Your task to perform on an android device: Open Google Chrome and open the bookmarks view Image 0: 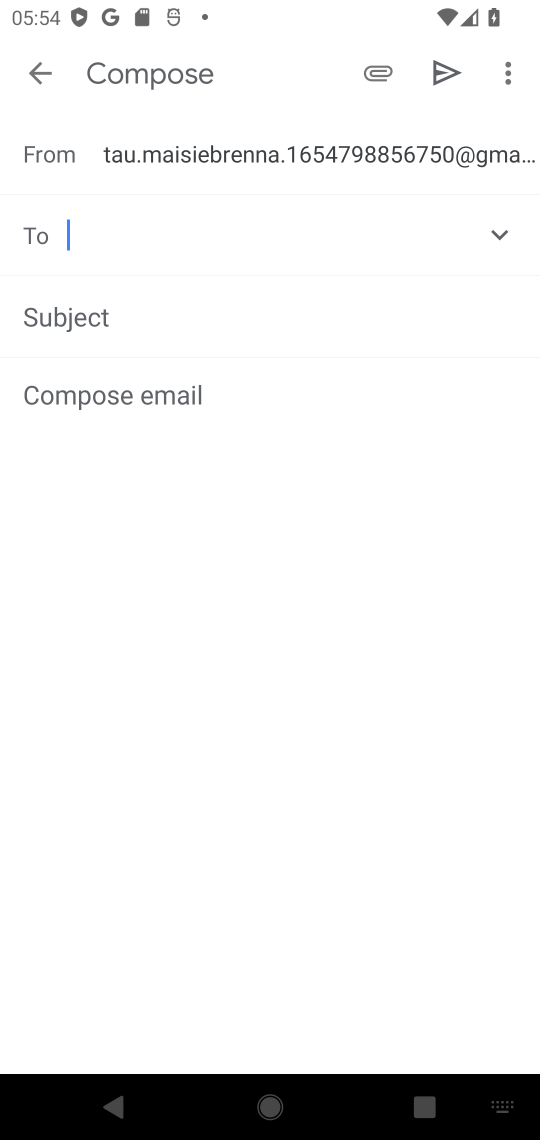
Step 0: press home button
Your task to perform on an android device: Open Google Chrome and open the bookmarks view Image 1: 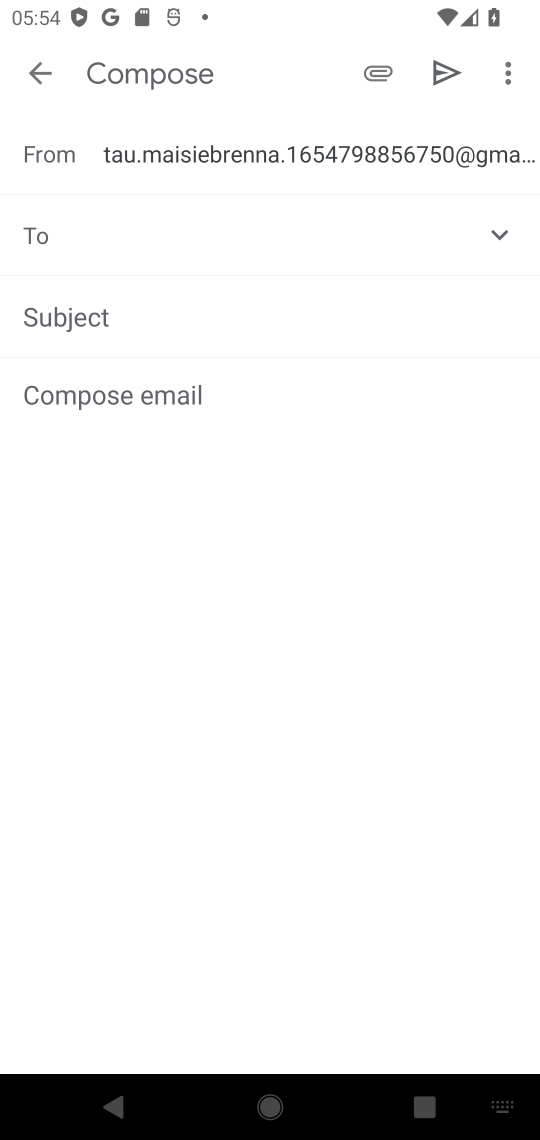
Step 1: press home button
Your task to perform on an android device: Open Google Chrome and open the bookmarks view Image 2: 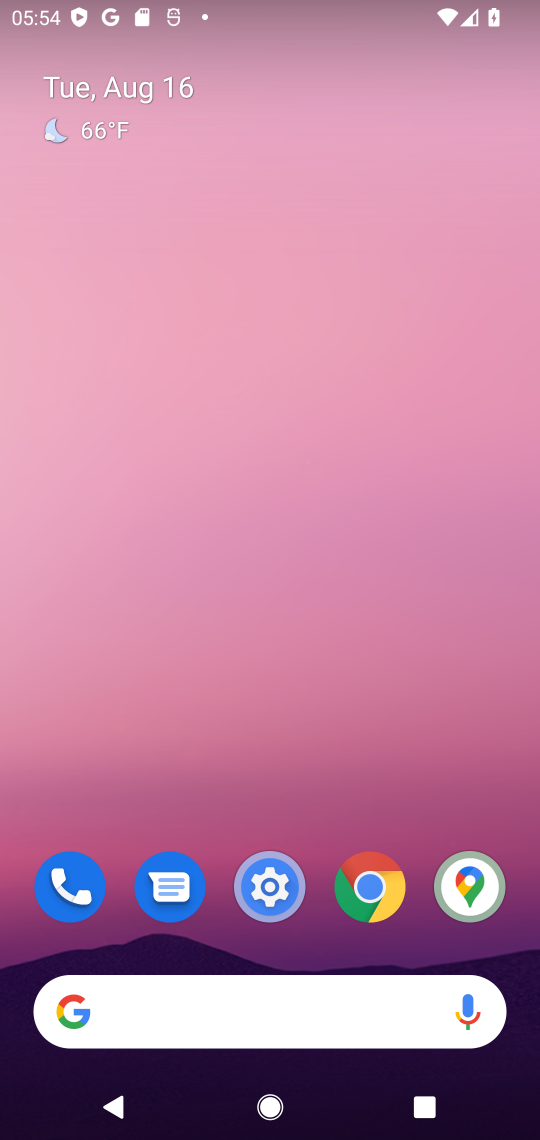
Step 2: drag from (315, 742) to (323, 29)
Your task to perform on an android device: Open Google Chrome and open the bookmarks view Image 3: 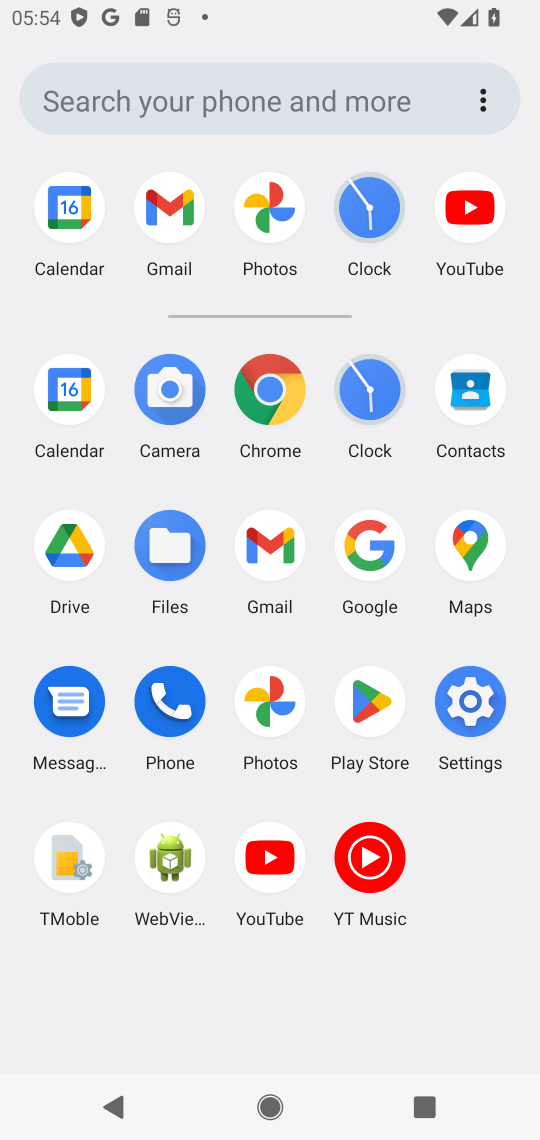
Step 3: click (266, 393)
Your task to perform on an android device: Open Google Chrome and open the bookmarks view Image 4: 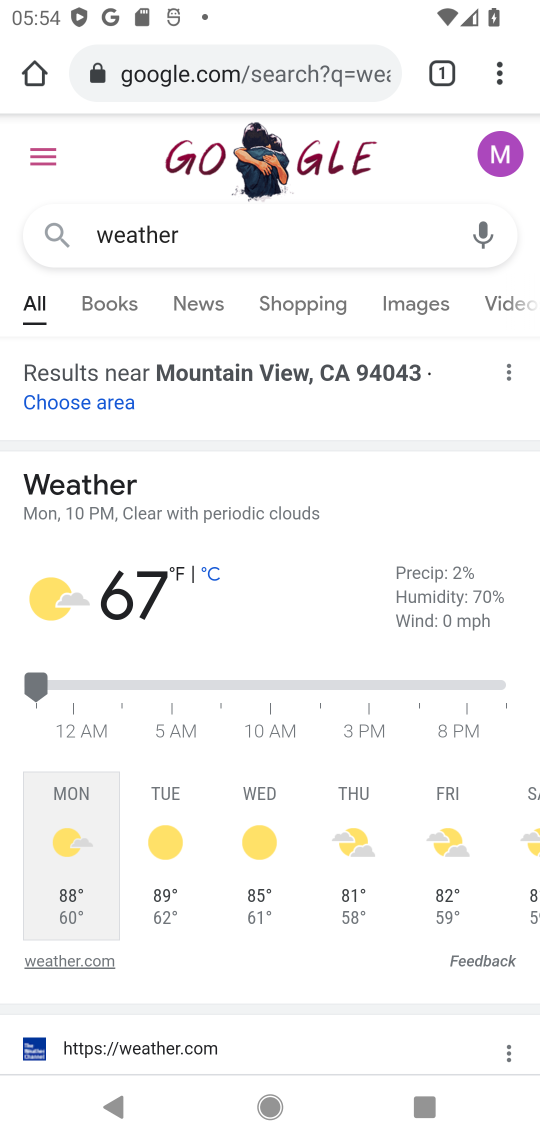
Step 4: drag from (504, 58) to (290, 469)
Your task to perform on an android device: Open Google Chrome and open the bookmarks view Image 5: 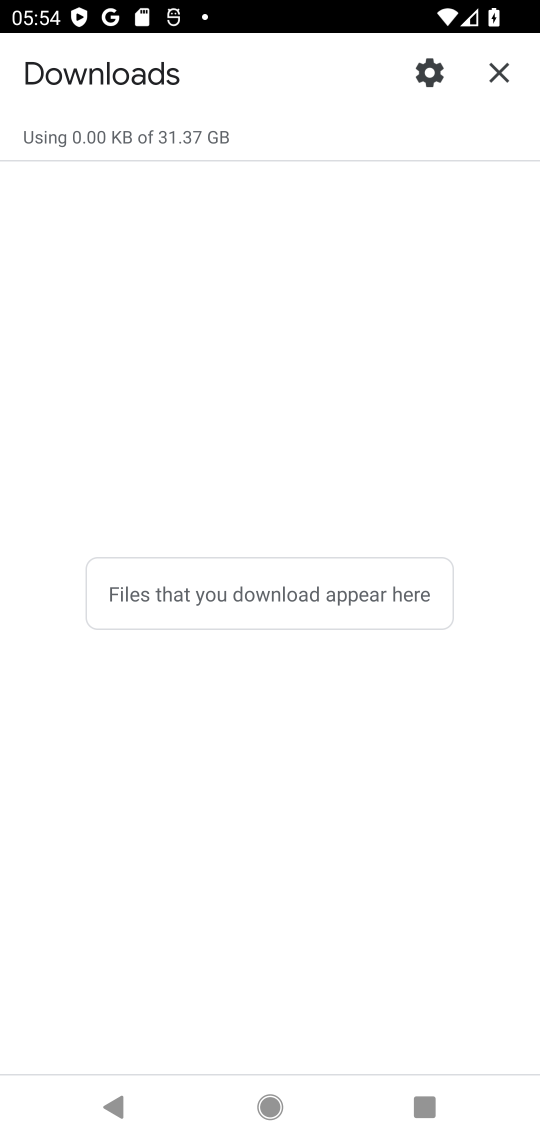
Step 5: click (510, 83)
Your task to perform on an android device: Open Google Chrome and open the bookmarks view Image 6: 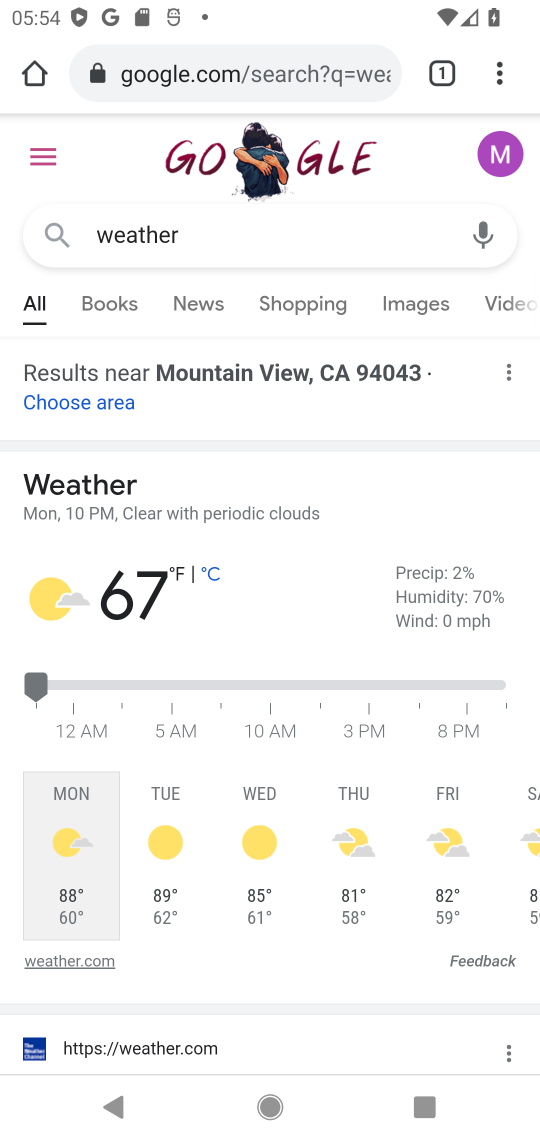
Step 6: task complete